Your task to perform on an android device: Add logitech g pro to the cart on target Image 0: 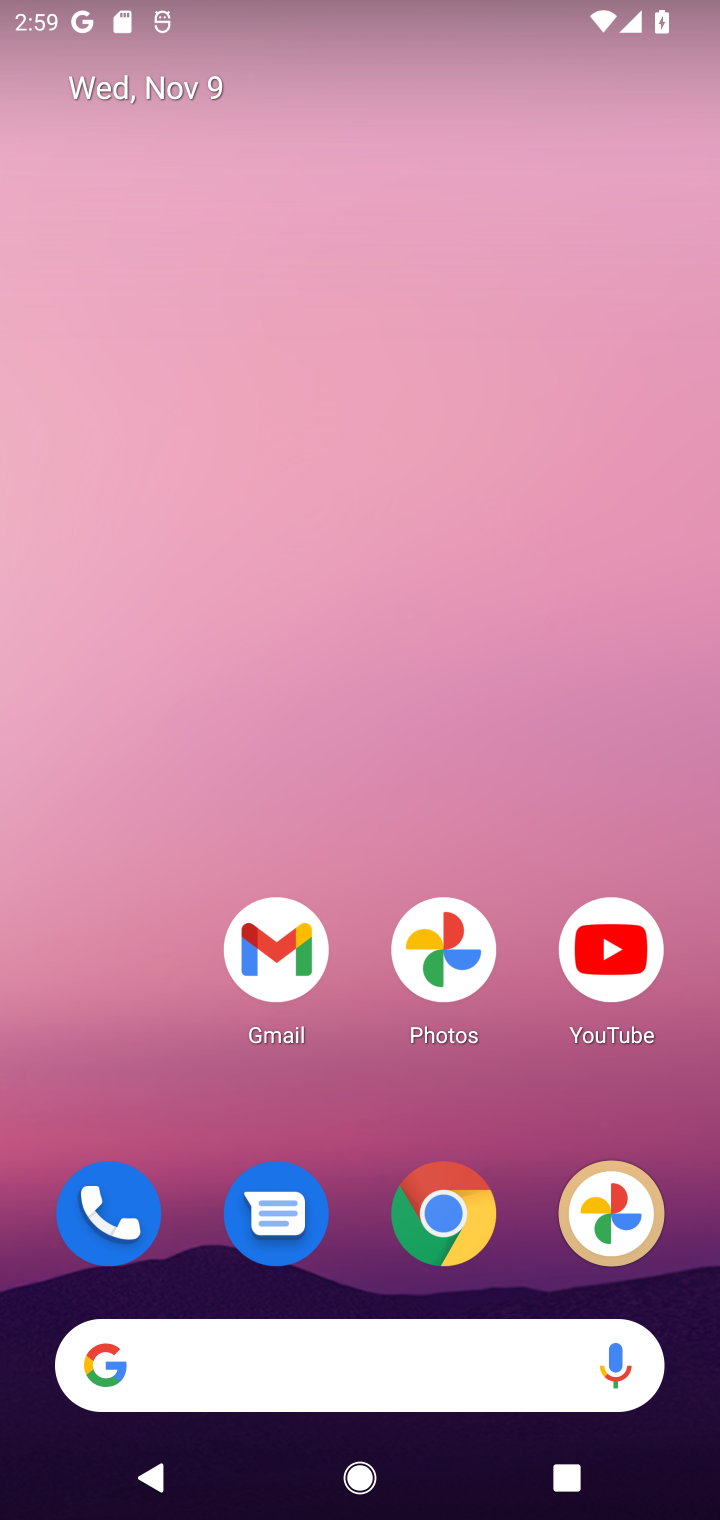
Step 0: click (448, 1213)
Your task to perform on an android device: Add logitech g pro to the cart on target Image 1: 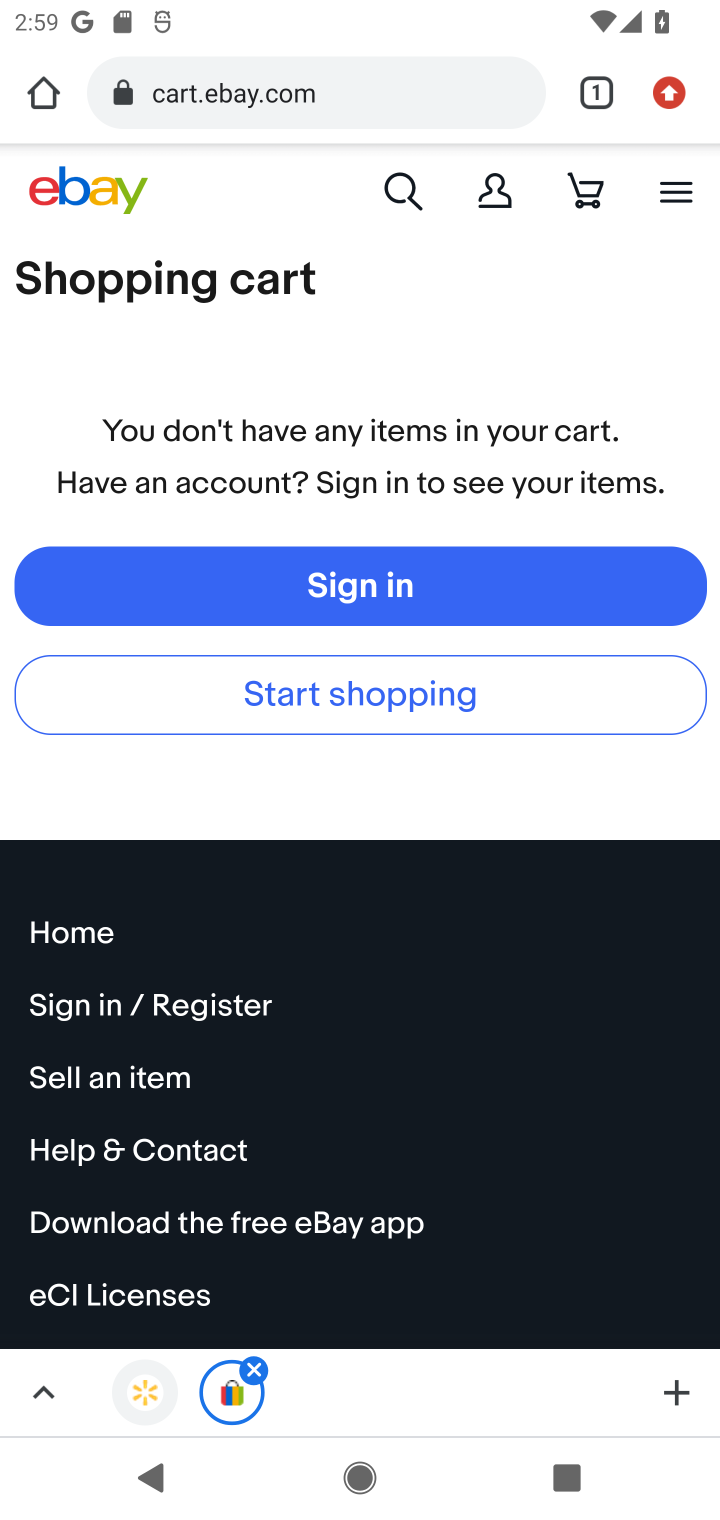
Step 1: click (335, 102)
Your task to perform on an android device: Add logitech g pro to the cart on target Image 2: 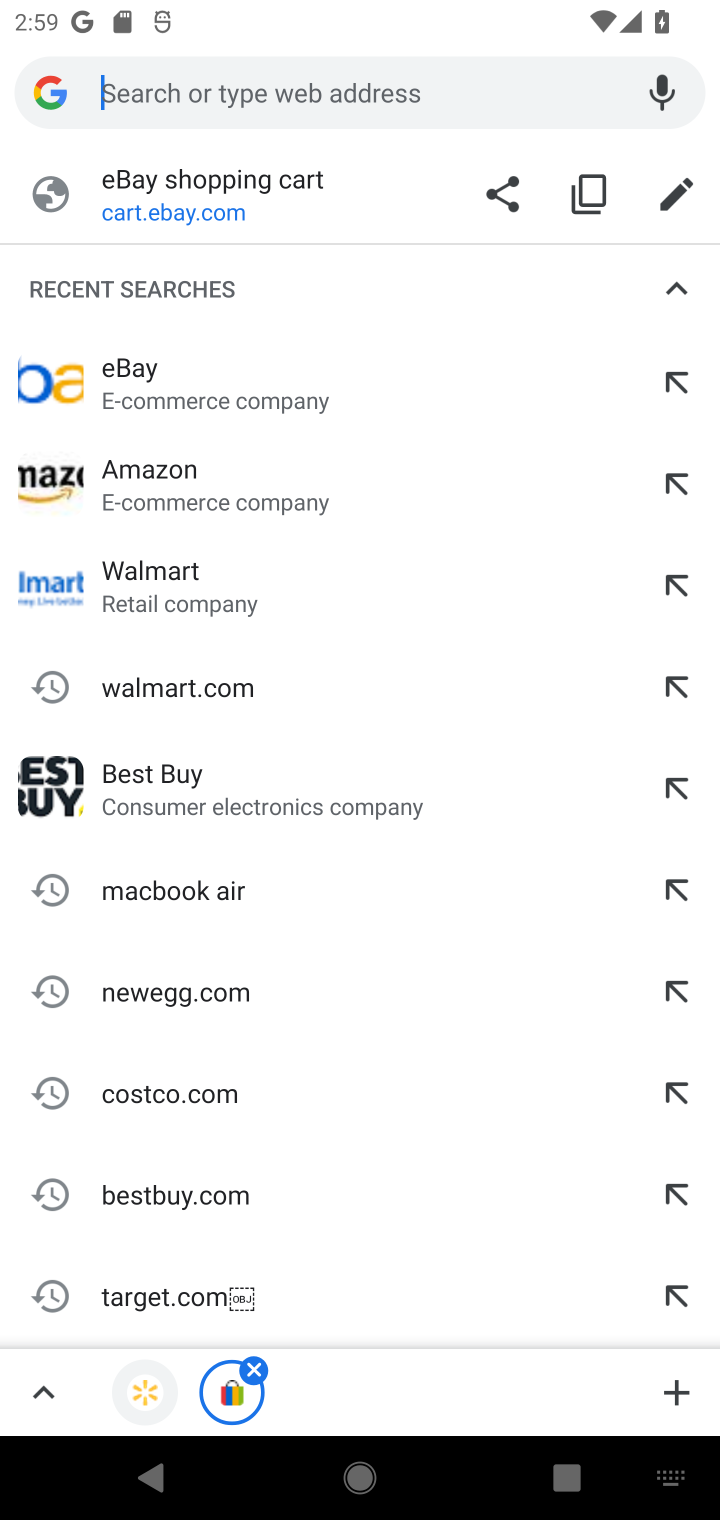
Step 2: type "target"
Your task to perform on an android device: Add logitech g pro to the cart on target Image 3: 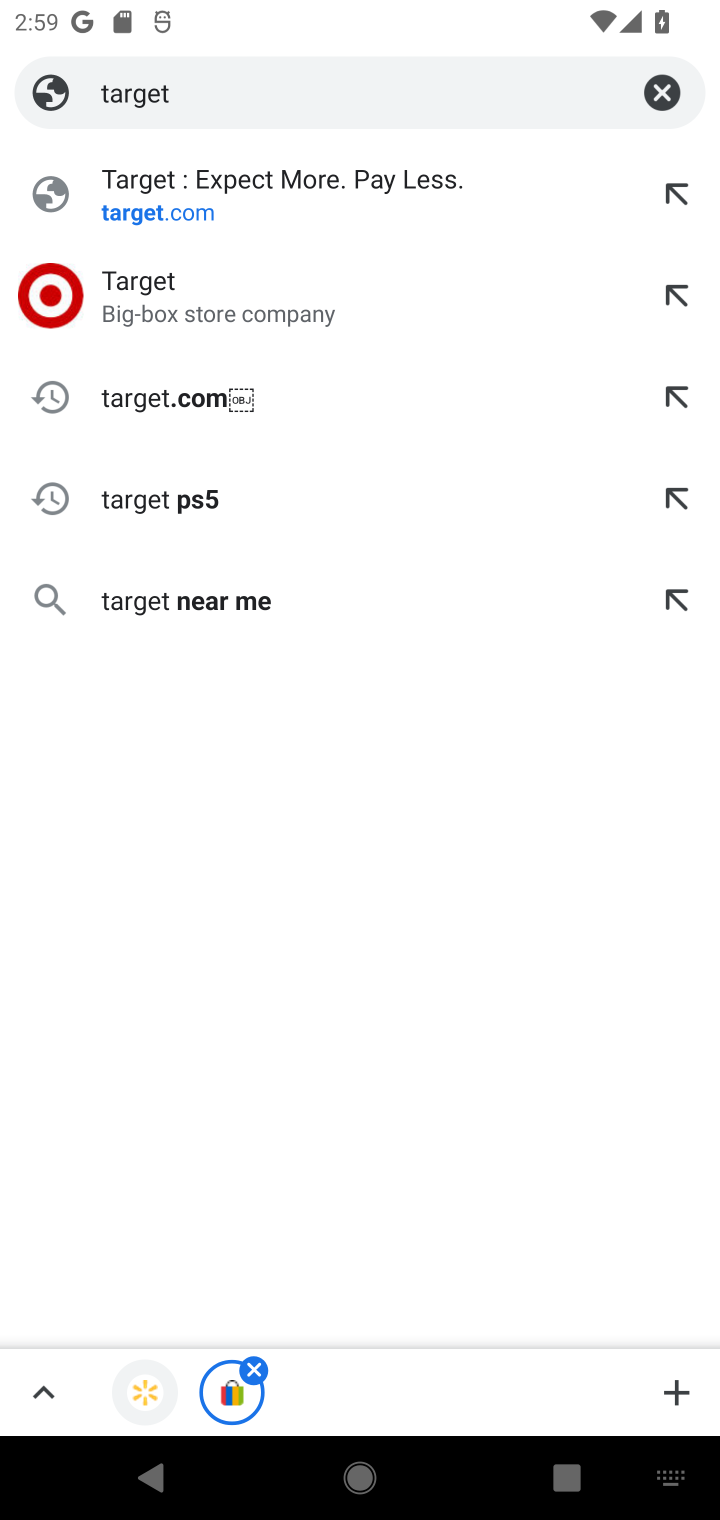
Step 3: click (166, 269)
Your task to perform on an android device: Add logitech g pro to the cart on target Image 4: 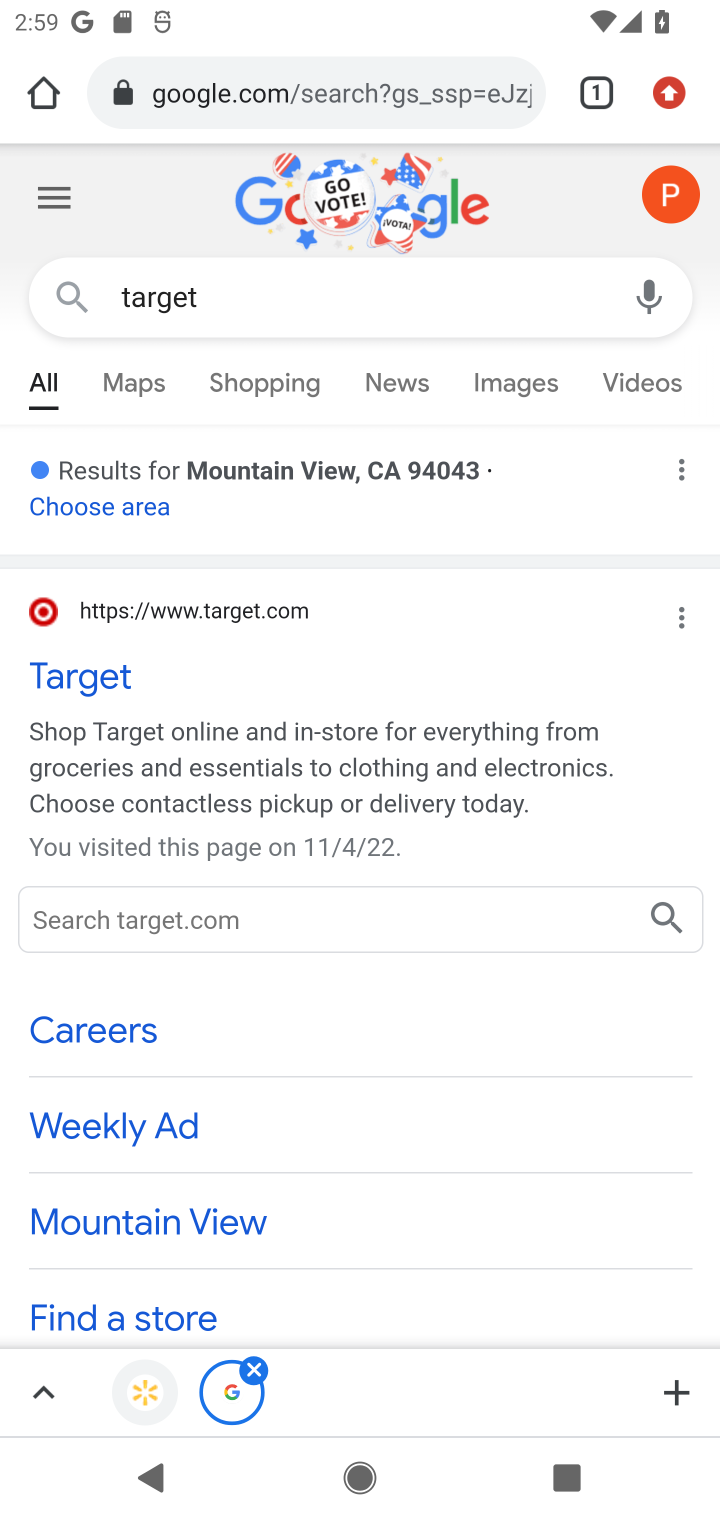
Step 4: click (101, 689)
Your task to perform on an android device: Add logitech g pro to the cart on target Image 5: 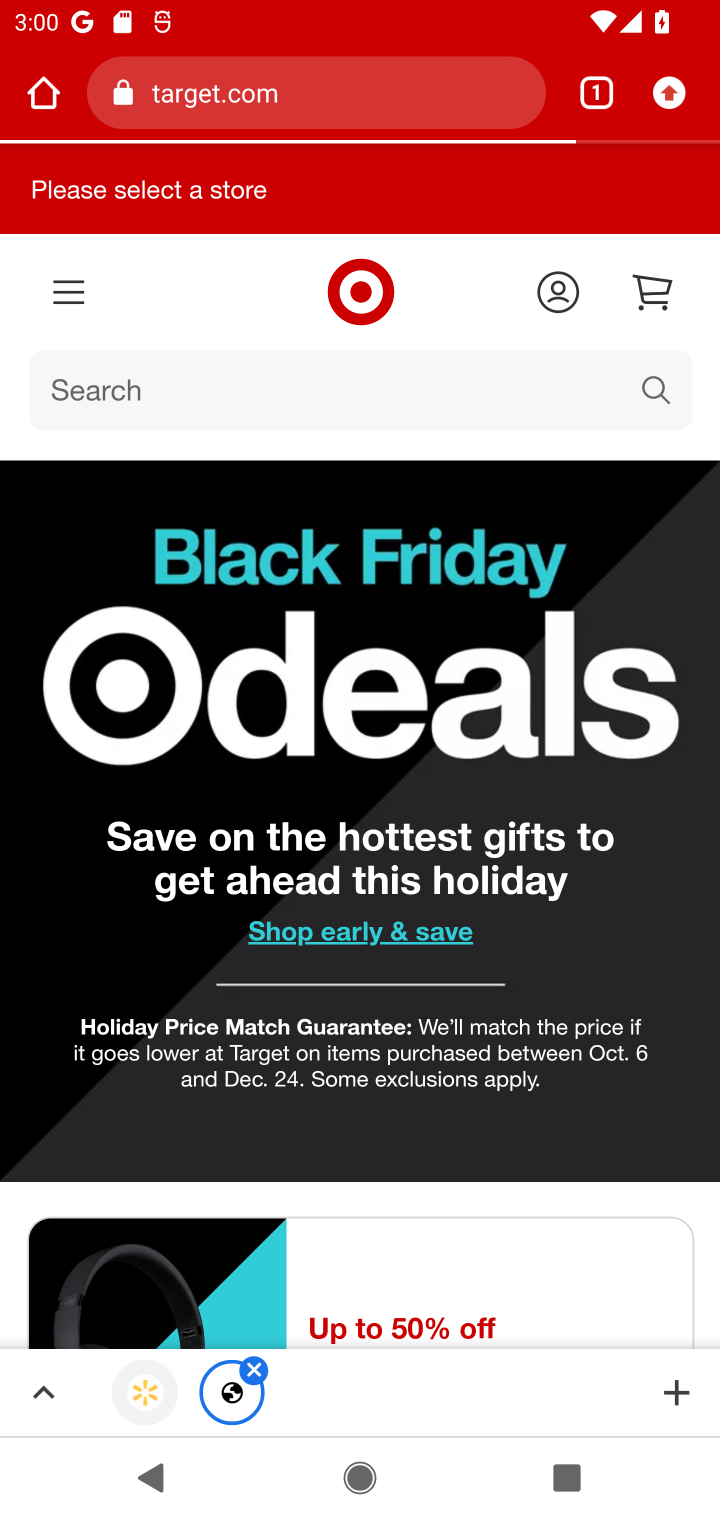
Step 5: click (257, 385)
Your task to perform on an android device: Add logitech g pro to the cart on target Image 6: 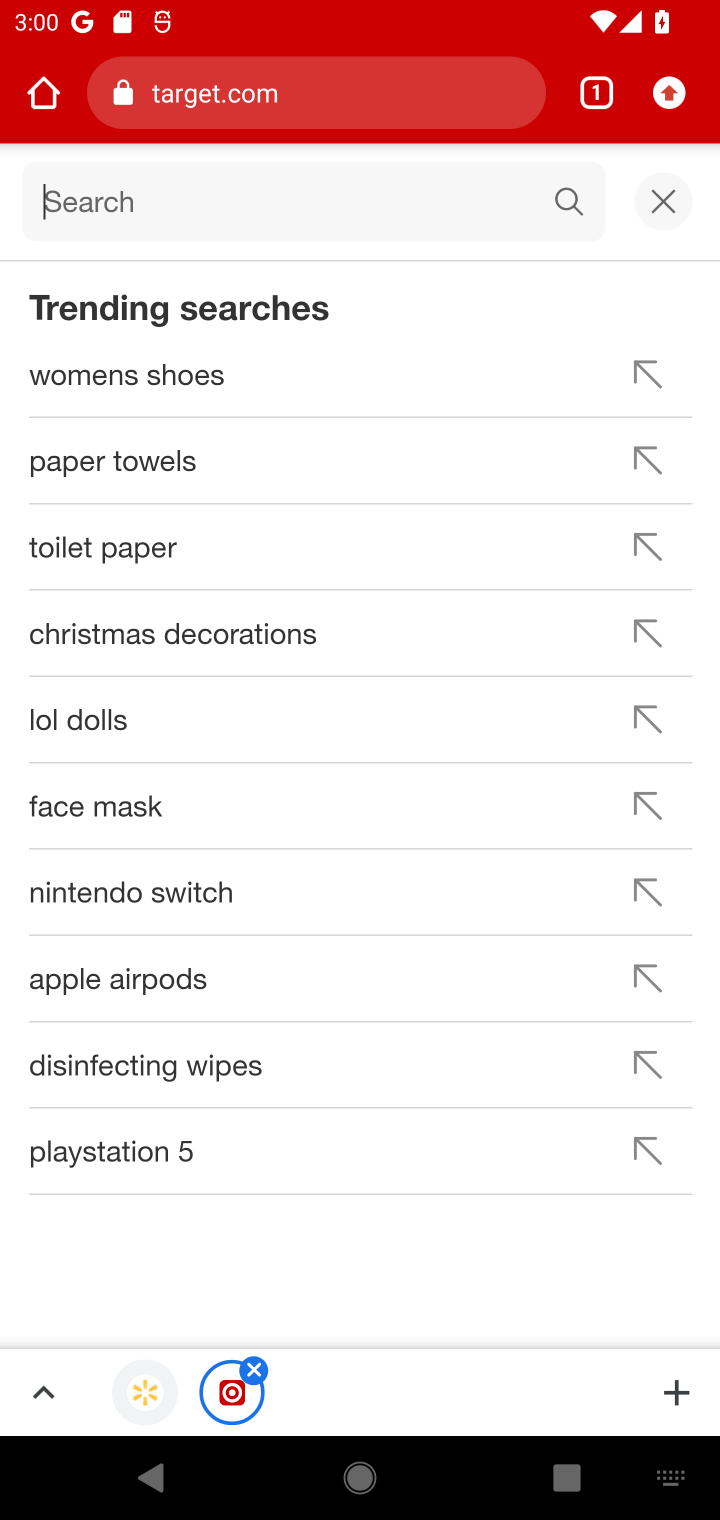
Step 6: type "logitech g pro"
Your task to perform on an android device: Add logitech g pro to the cart on target Image 7: 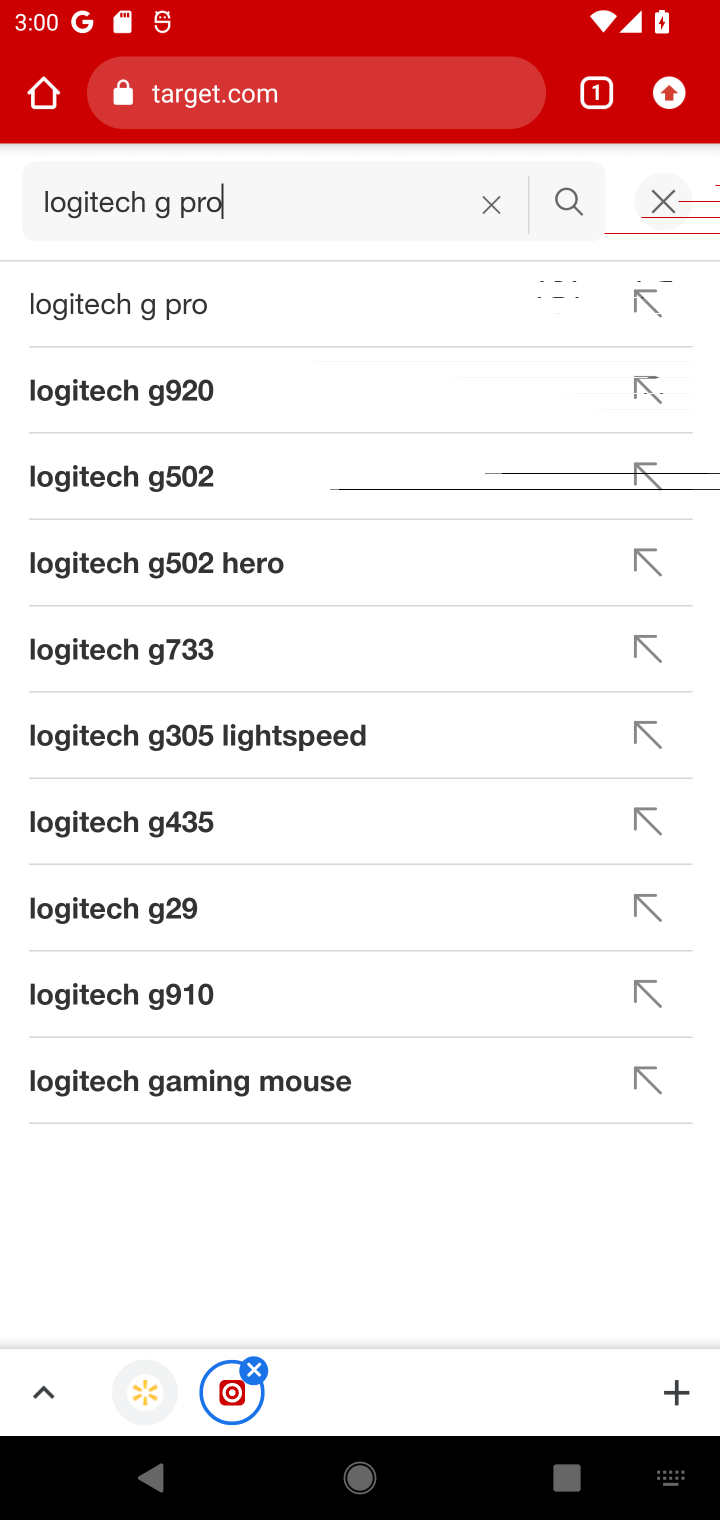
Step 7: click (142, 312)
Your task to perform on an android device: Add logitech g pro to the cart on target Image 8: 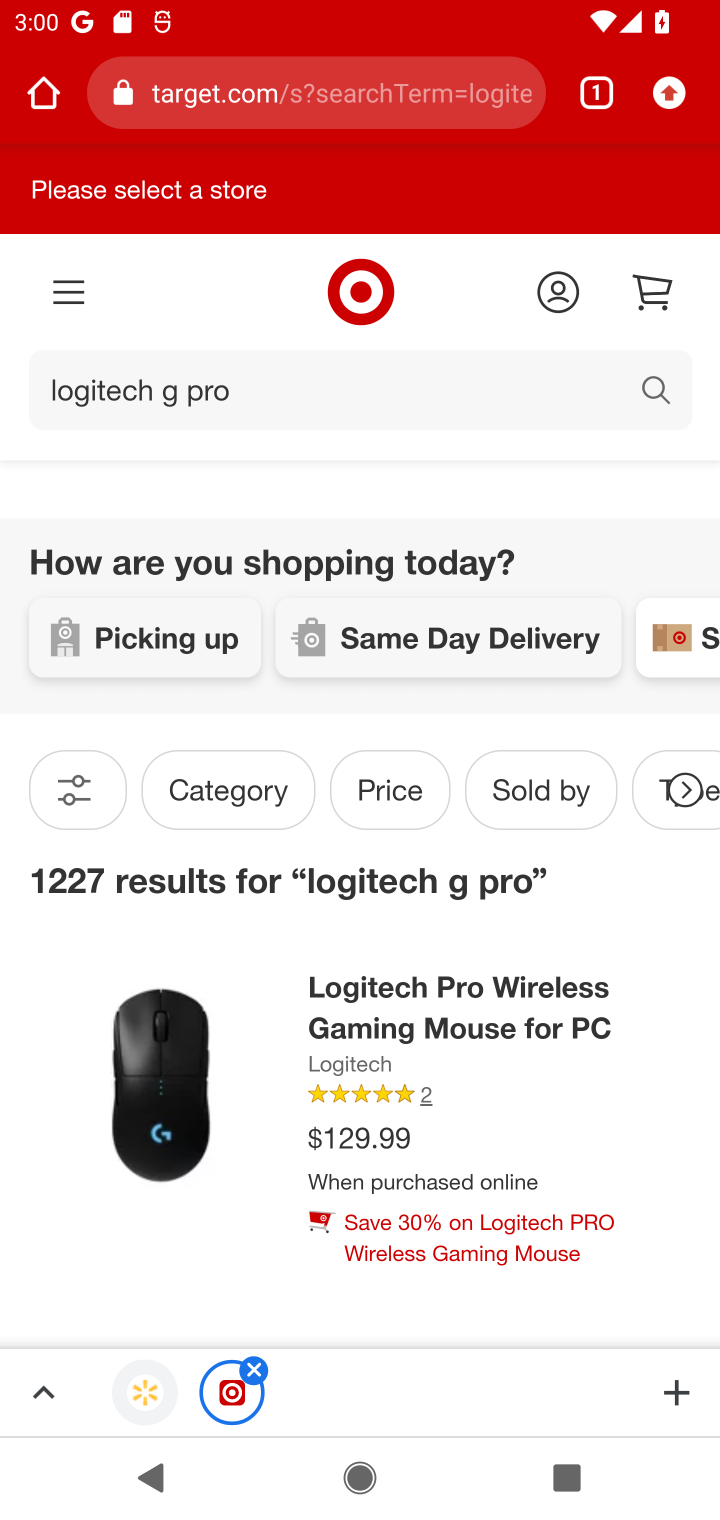
Step 8: click (484, 1001)
Your task to perform on an android device: Add logitech g pro to the cart on target Image 9: 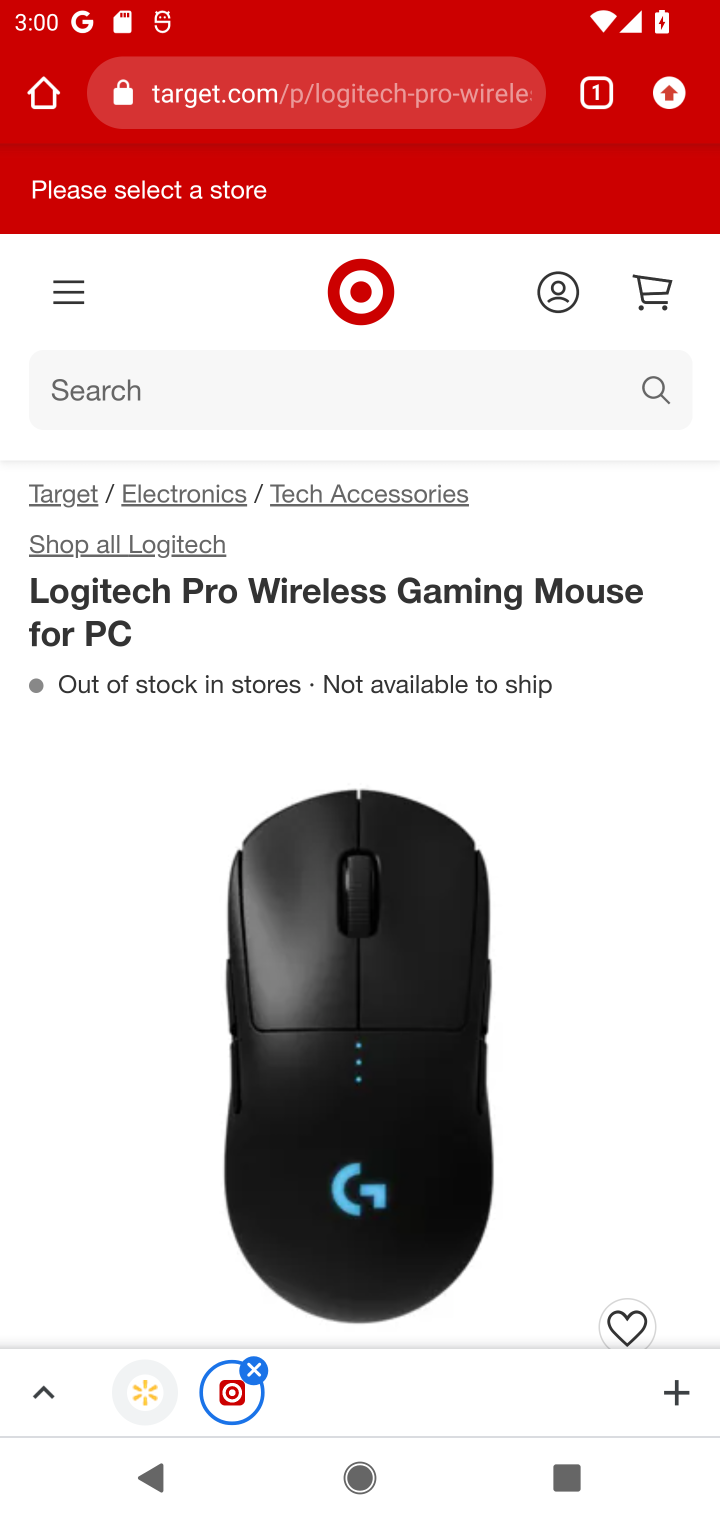
Step 9: drag from (506, 1125) to (485, 496)
Your task to perform on an android device: Add logitech g pro to the cart on target Image 10: 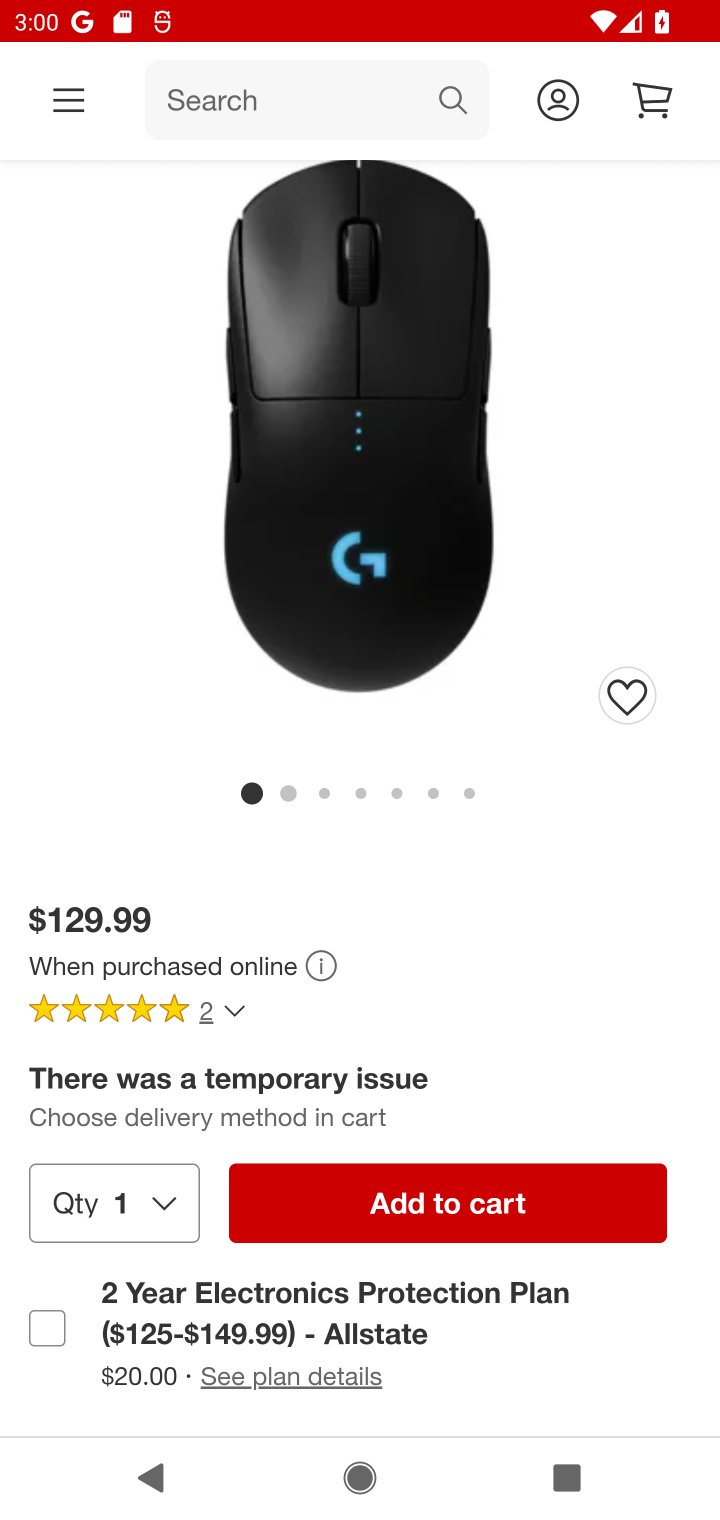
Step 10: click (474, 1209)
Your task to perform on an android device: Add logitech g pro to the cart on target Image 11: 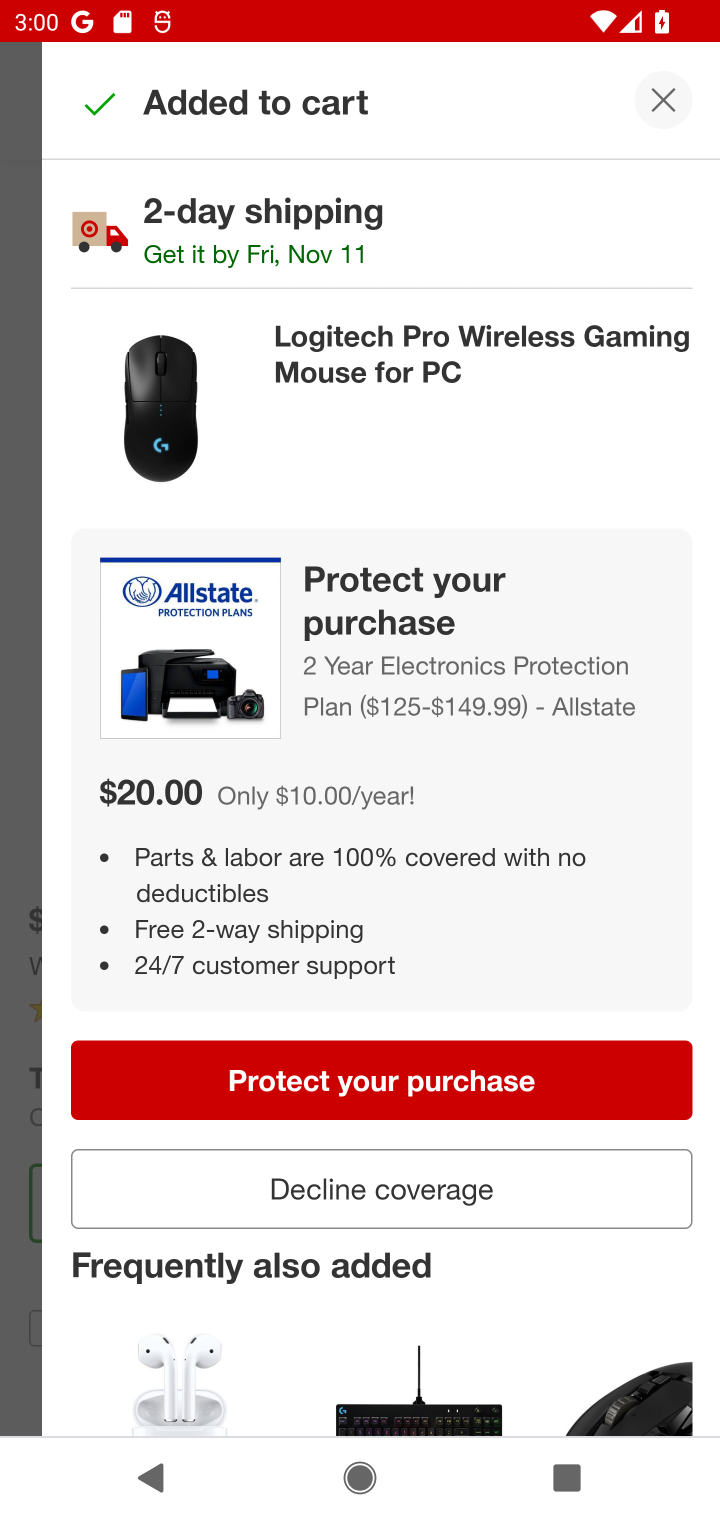
Step 11: click (431, 1189)
Your task to perform on an android device: Add logitech g pro to the cart on target Image 12: 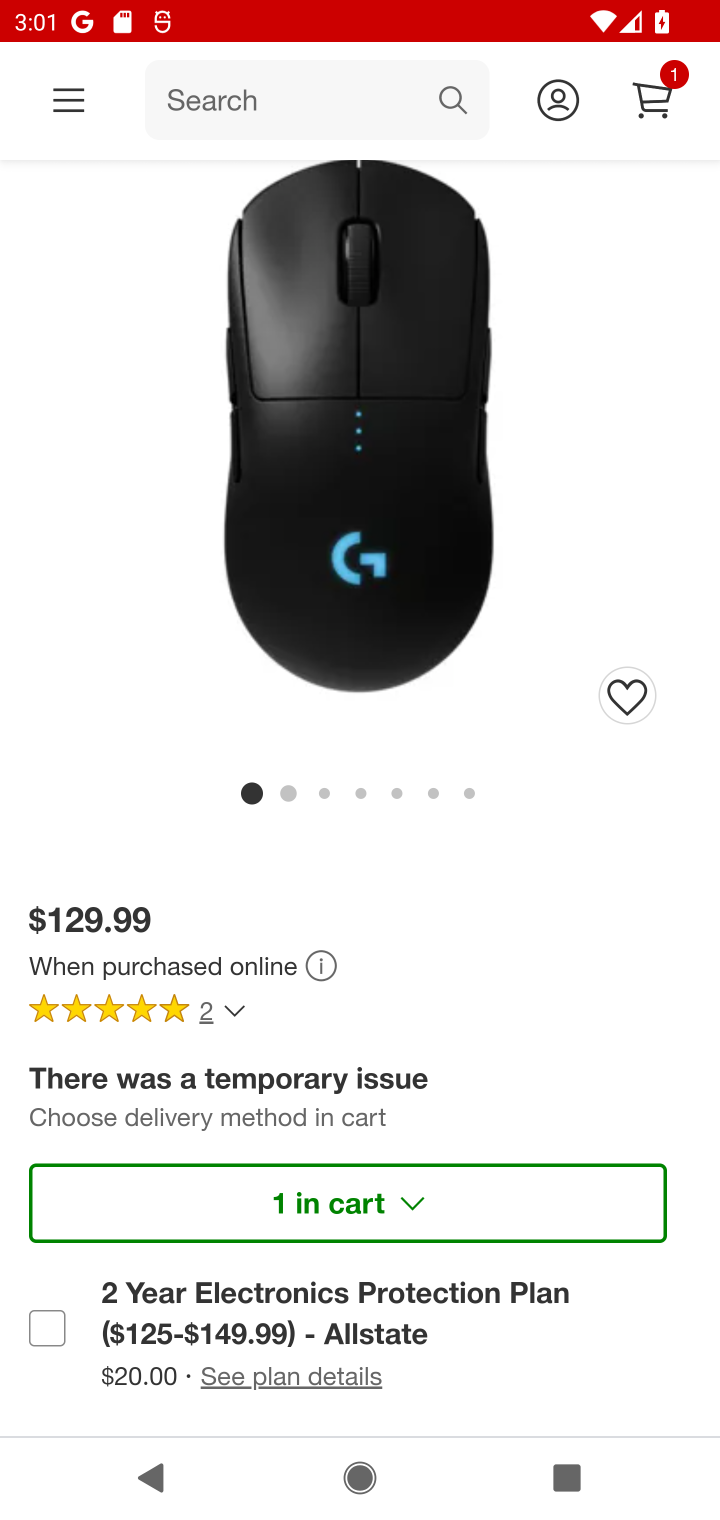
Step 12: task complete